Your task to perform on an android device: Is it going to rain this weekend? Image 0: 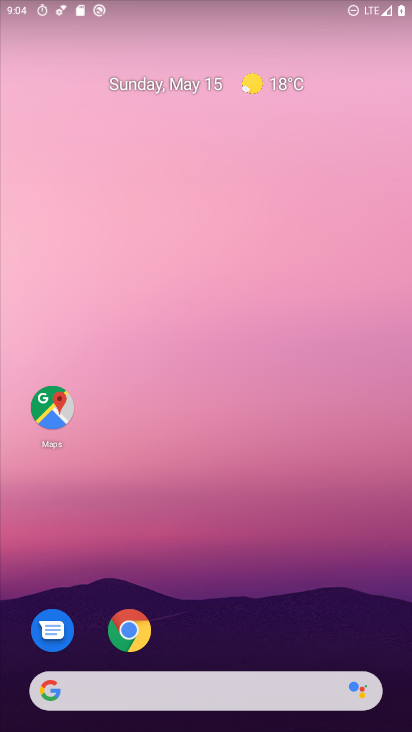
Step 0: drag from (214, 425) to (243, 244)
Your task to perform on an android device: Is it going to rain this weekend? Image 1: 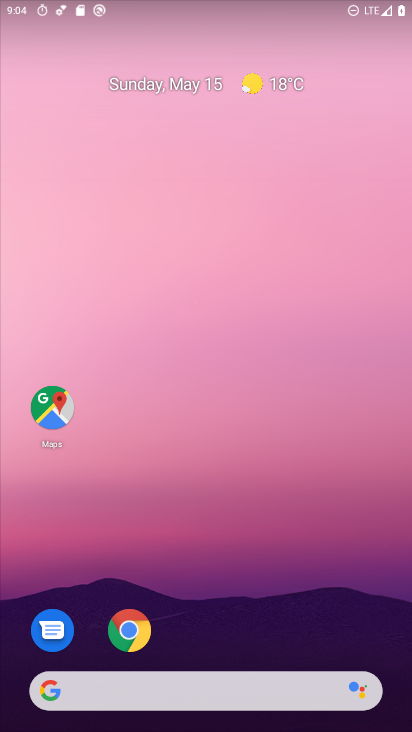
Step 1: drag from (219, 631) to (224, 124)
Your task to perform on an android device: Is it going to rain this weekend? Image 2: 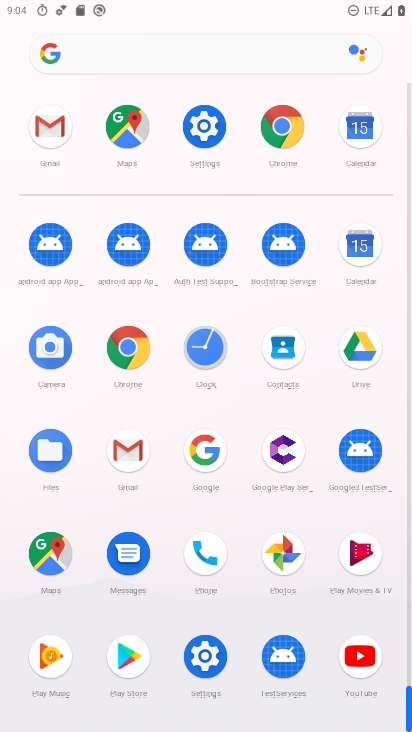
Step 2: click (161, 57)
Your task to perform on an android device: Is it going to rain this weekend? Image 3: 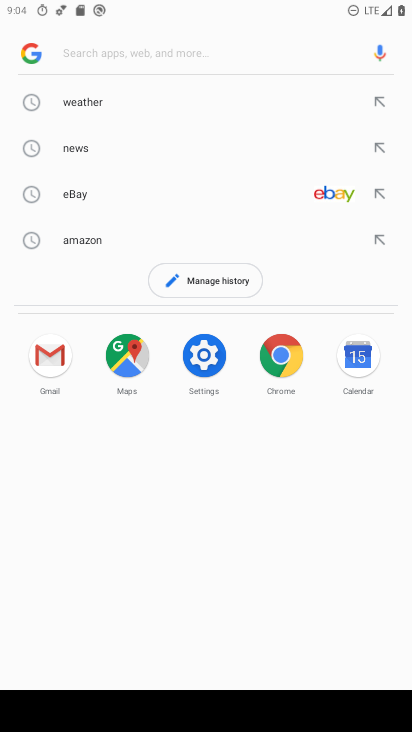
Step 3: type "rain this weekend"
Your task to perform on an android device: Is it going to rain this weekend? Image 4: 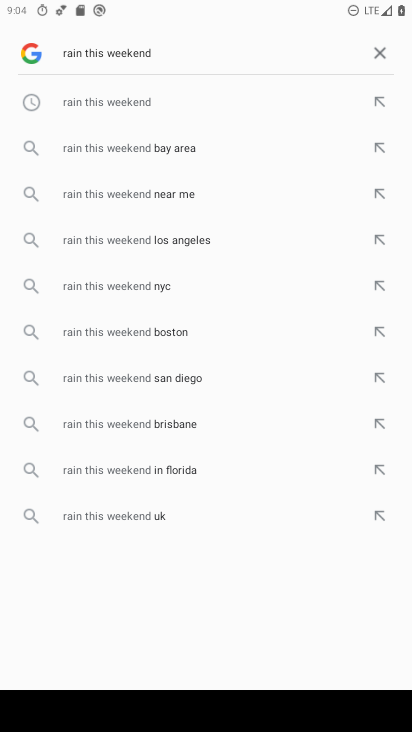
Step 4: click (166, 108)
Your task to perform on an android device: Is it going to rain this weekend? Image 5: 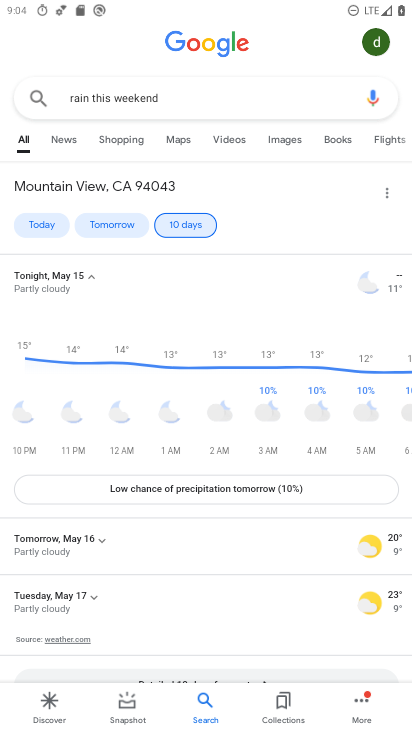
Step 5: task complete